Your task to perform on an android device: Clear the shopping cart on walmart. Image 0: 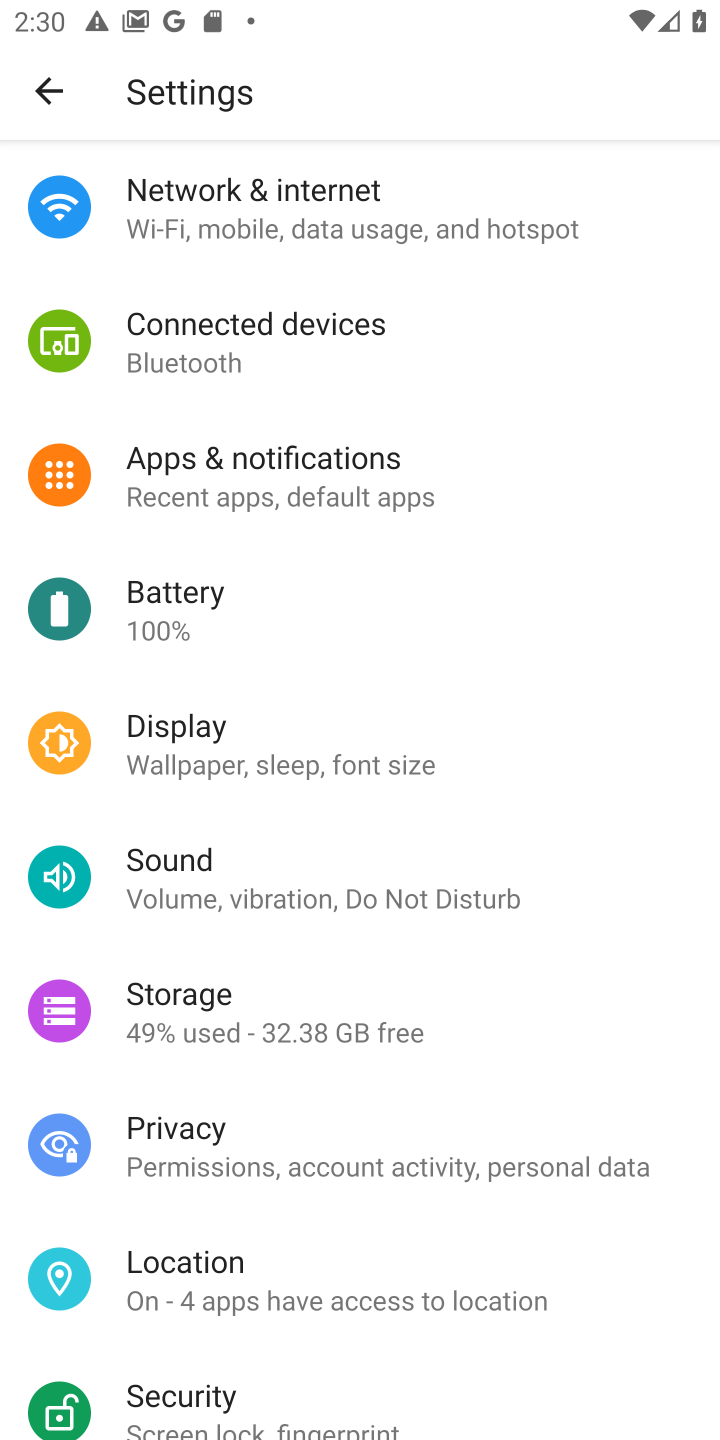
Step 0: press home button
Your task to perform on an android device: Clear the shopping cart on walmart. Image 1: 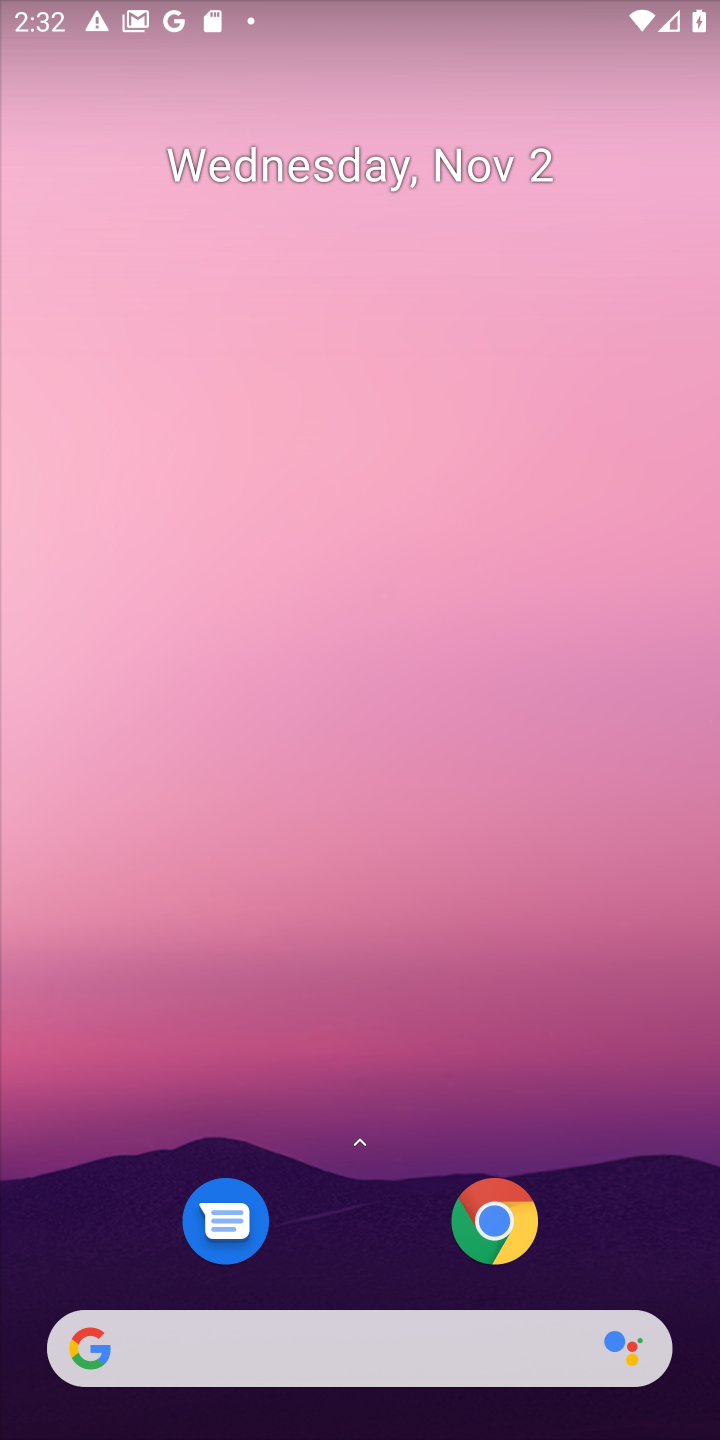
Step 1: click (363, 1372)
Your task to perform on an android device: Clear the shopping cart on walmart. Image 2: 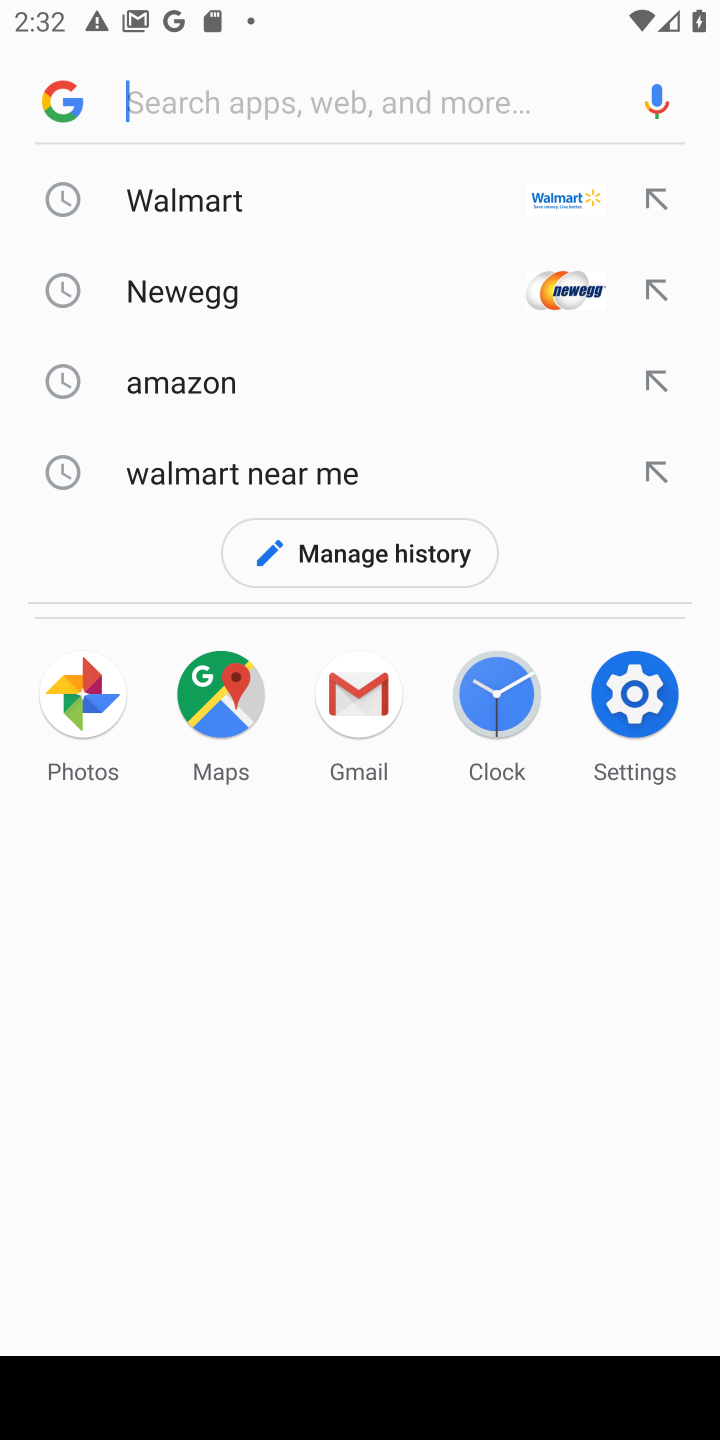
Step 2: click (504, 197)
Your task to perform on an android device: Clear the shopping cart on walmart. Image 3: 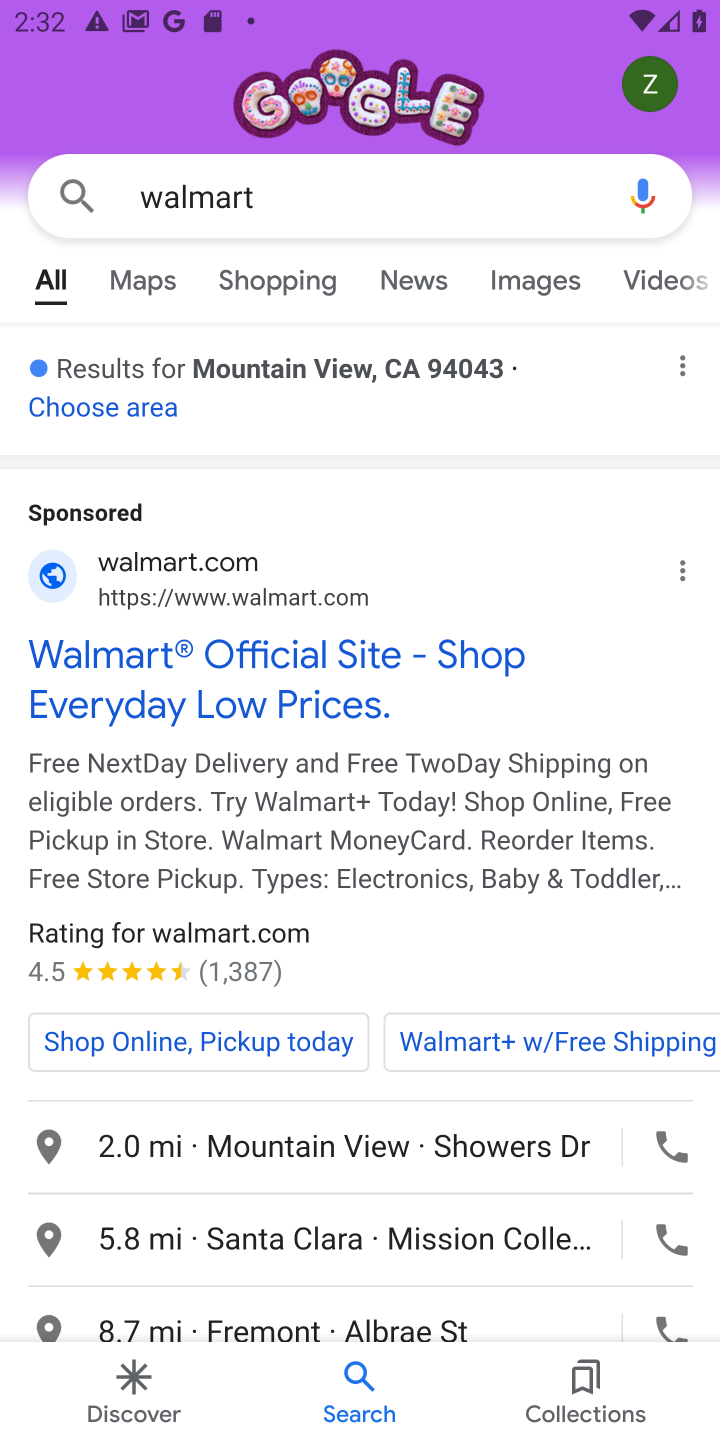
Step 3: click (249, 668)
Your task to perform on an android device: Clear the shopping cart on walmart. Image 4: 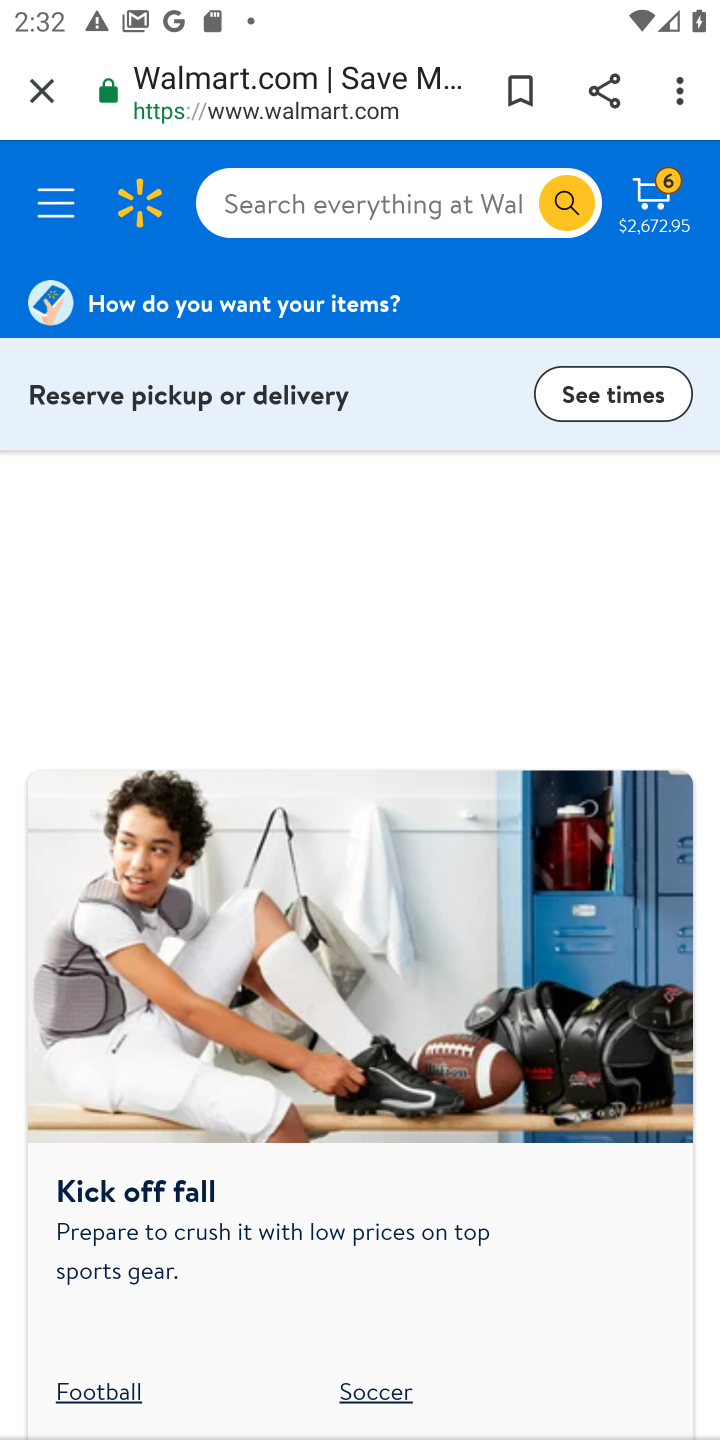
Step 4: click (625, 187)
Your task to perform on an android device: Clear the shopping cart on walmart. Image 5: 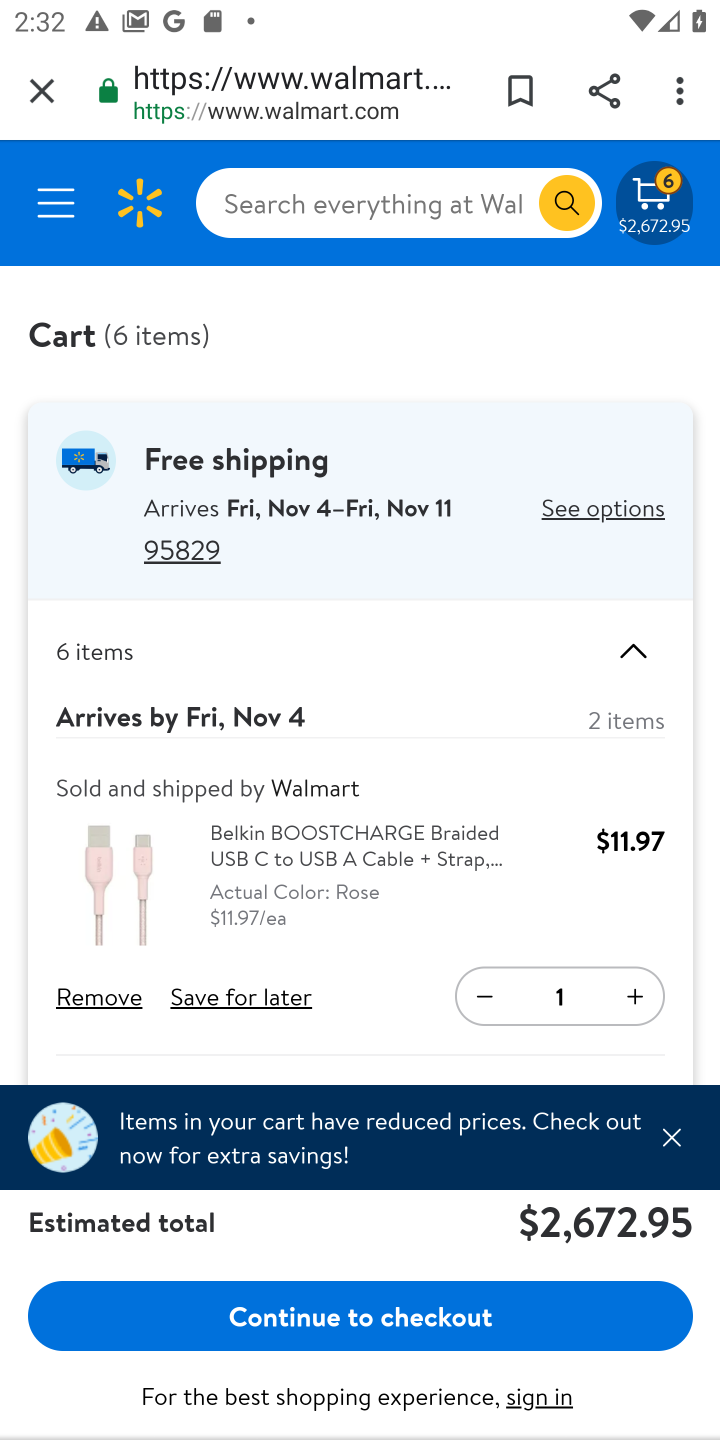
Step 5: click (490, 1005)
Your task to perform on an android device: Clear the shopping cart on walmart. Image 6: 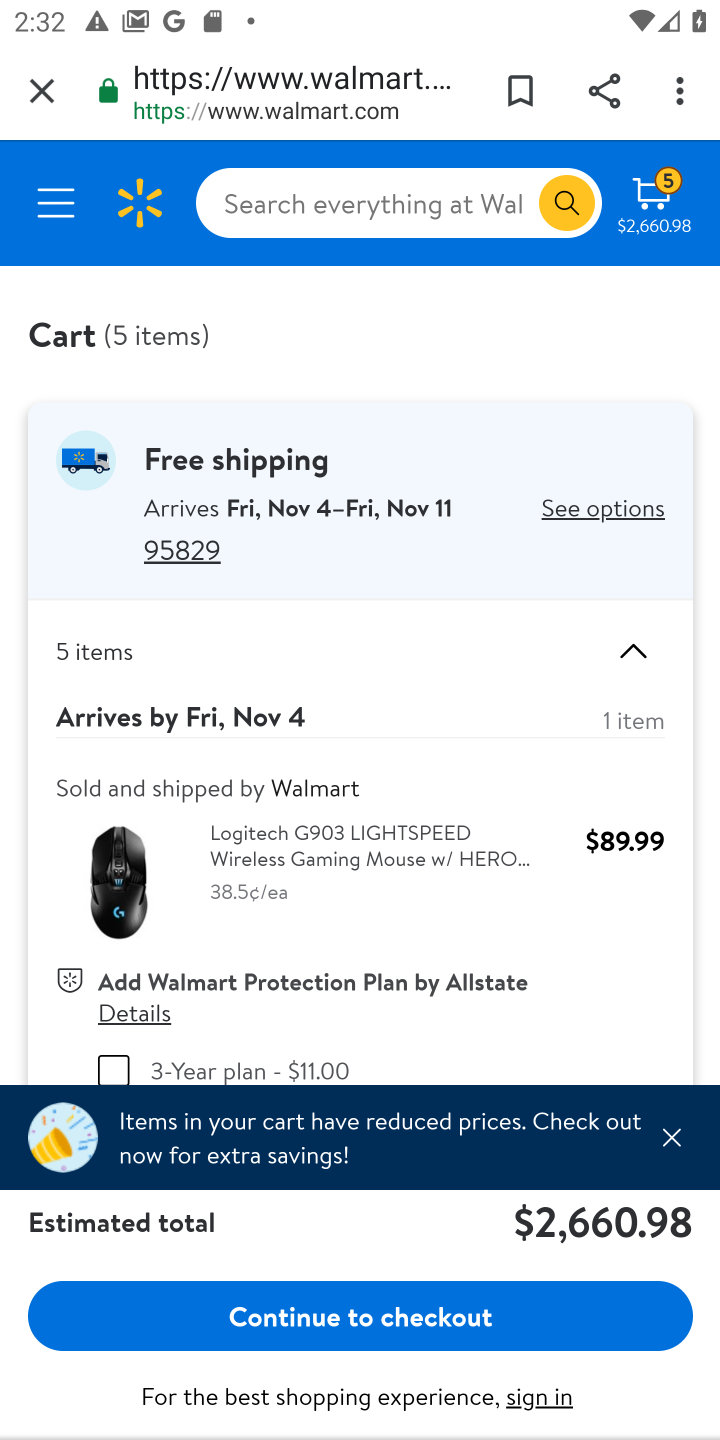
Step 6: drag from (333, 944) to (334, 670)
Your task to perform on an android device: Clear the shopping cart on walmart. Image 7: 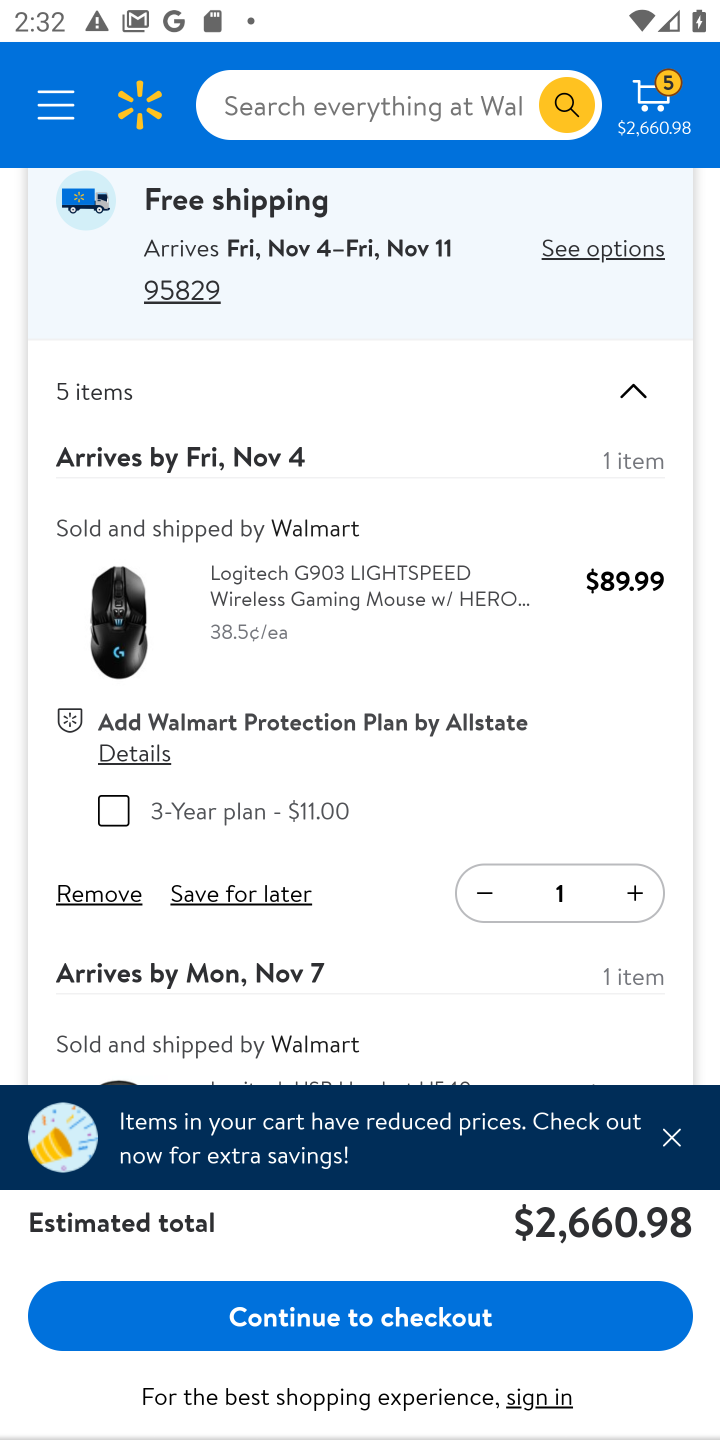
Step 7: click (673, 1048)
Your task to perform on an android device: Clear the shopping cart on walmart. Image 8: 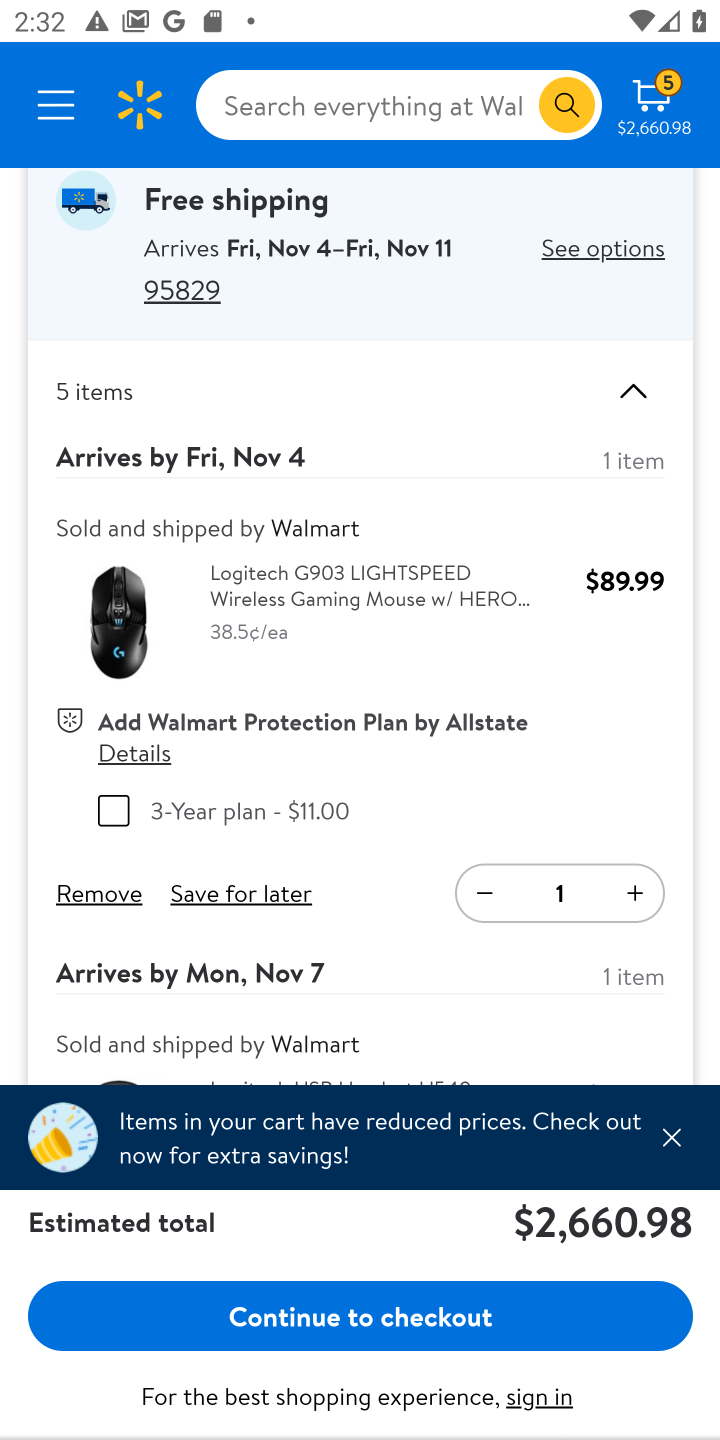
Step 8: click (478, 884)
Your task to perform on an android device: Clear the shopping cart on walmart. Image 9: 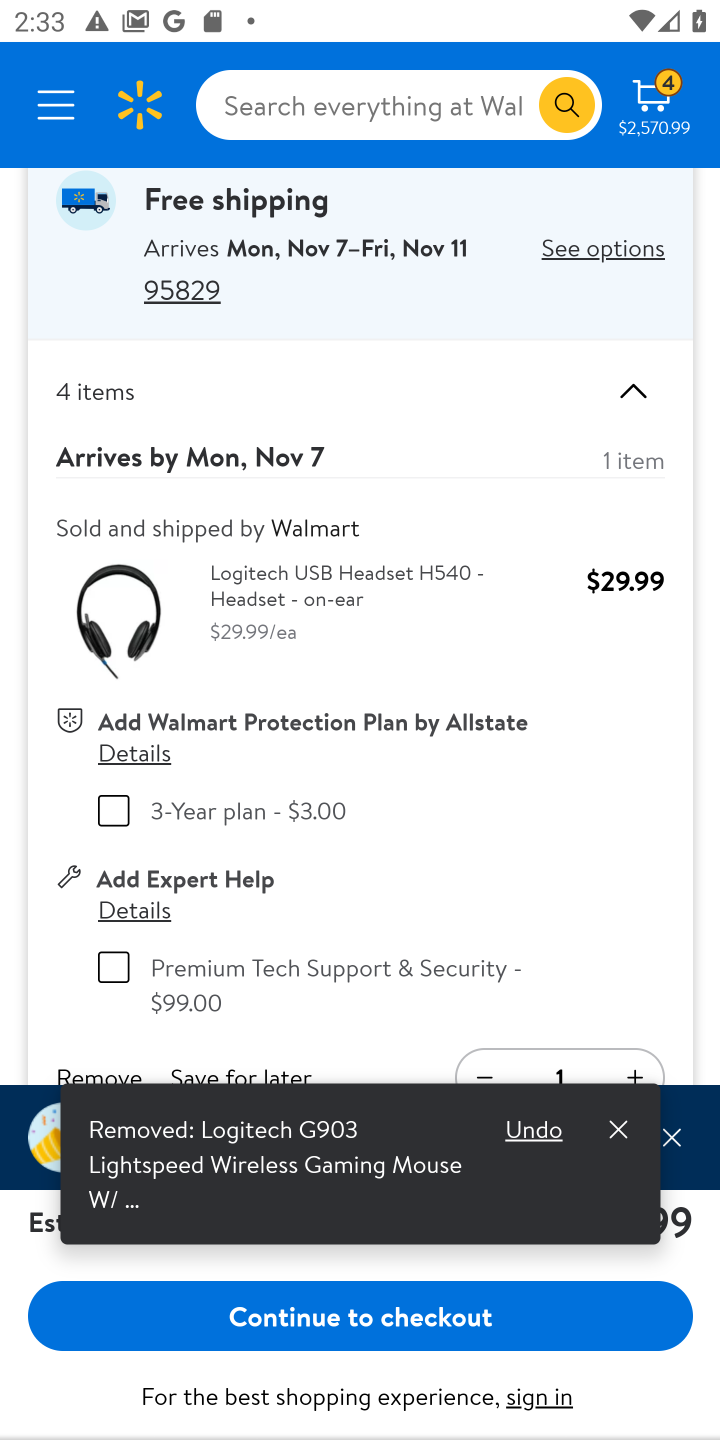
Step 9: drag from (471, 937) to (470, 670)
Your task to perform on an android device: Clear the shopping cart on walmart. Image 10: 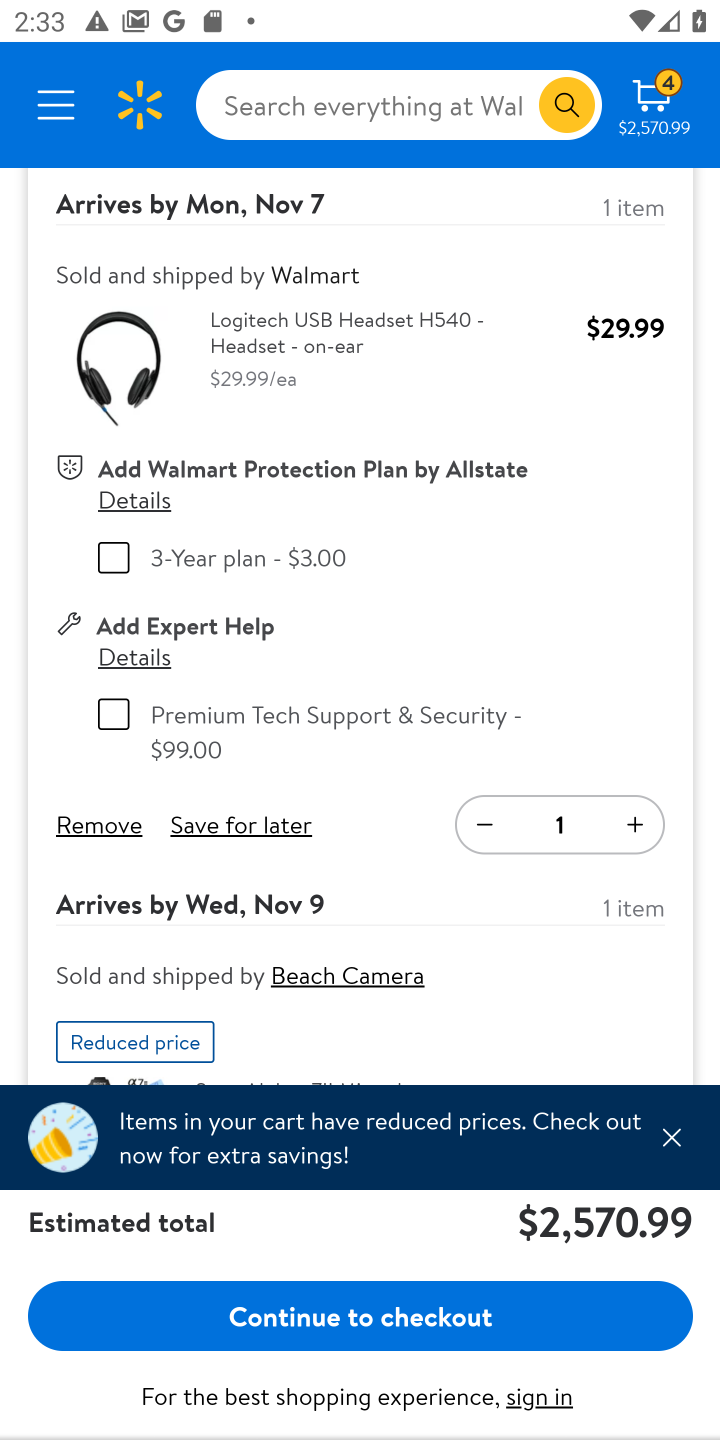
Step 10: click (497, 833)
Your task to perform on an android device: Clear the shopping cart on walmart. Image 11: 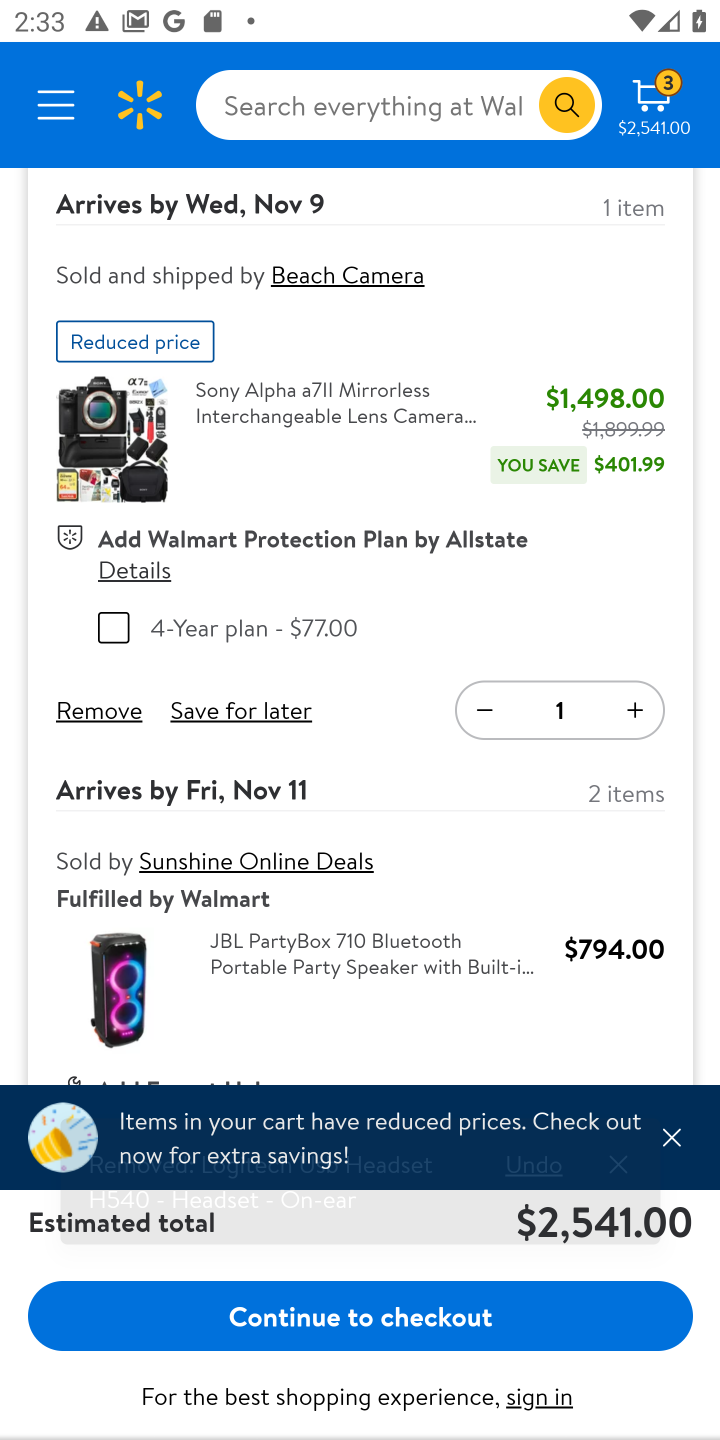
Step 11: click (475, 713)
Your task to perform on an android device: Clear the shopping cart on walmart. Image 12: 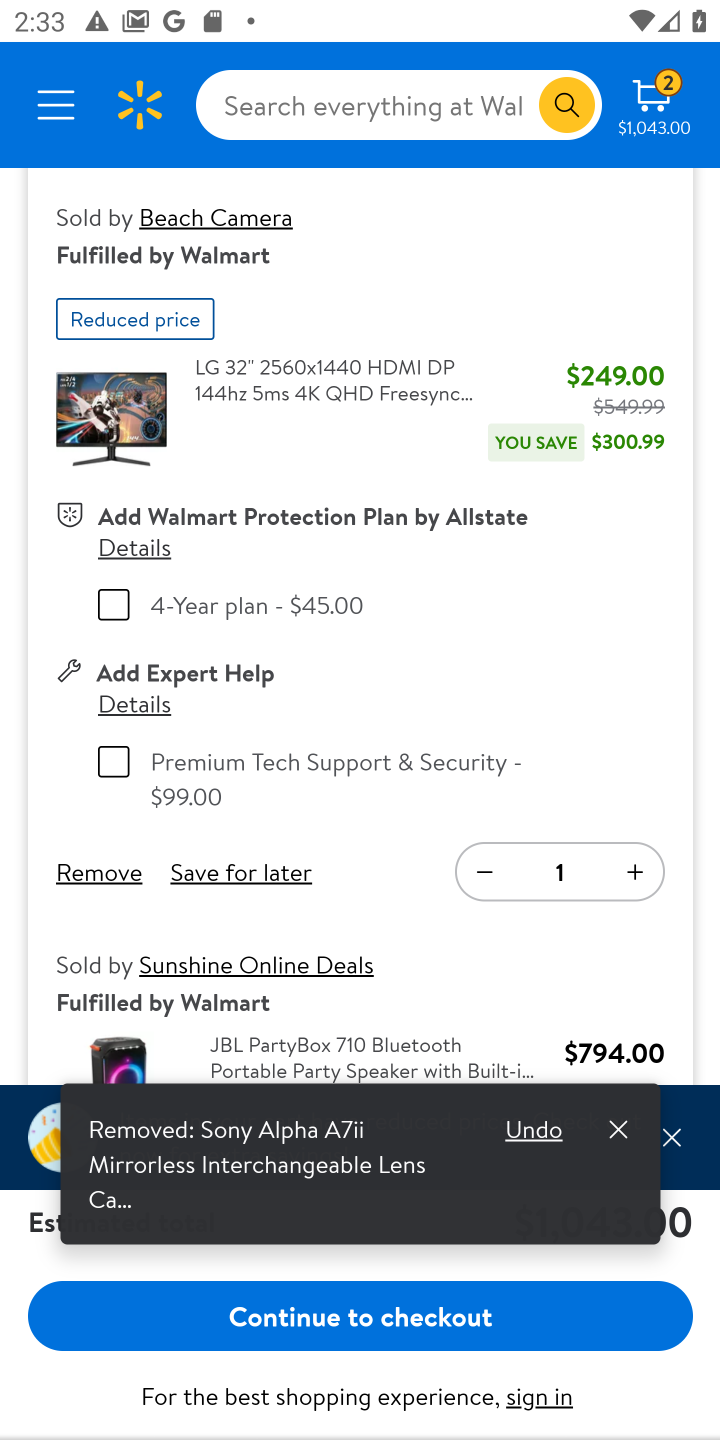
Step 12: click (484, 876)
Your task to perform on an android device: Clear the shopping cart on walmart. Image 13: 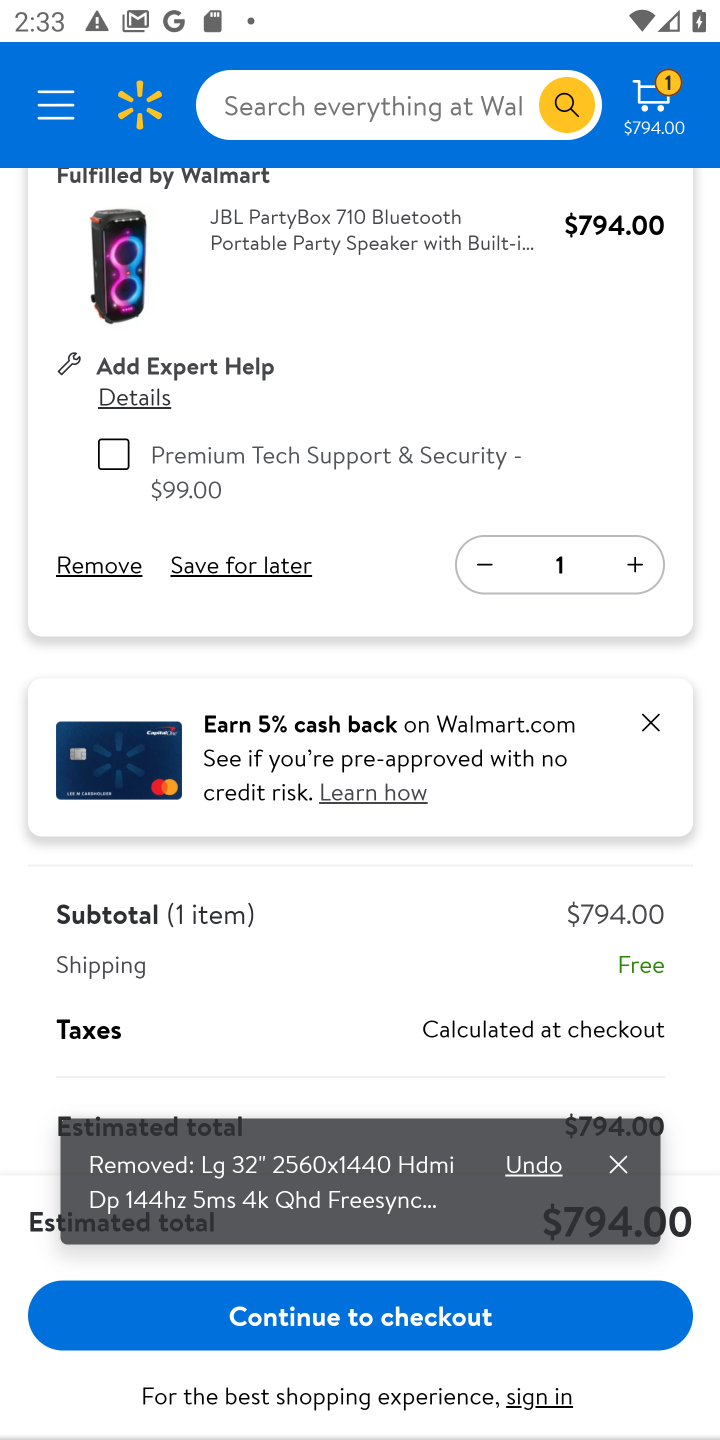
Step 13: click (474, 559)
Your task to perform on an android device: Clear the shopping cart on walmart. Image 14: 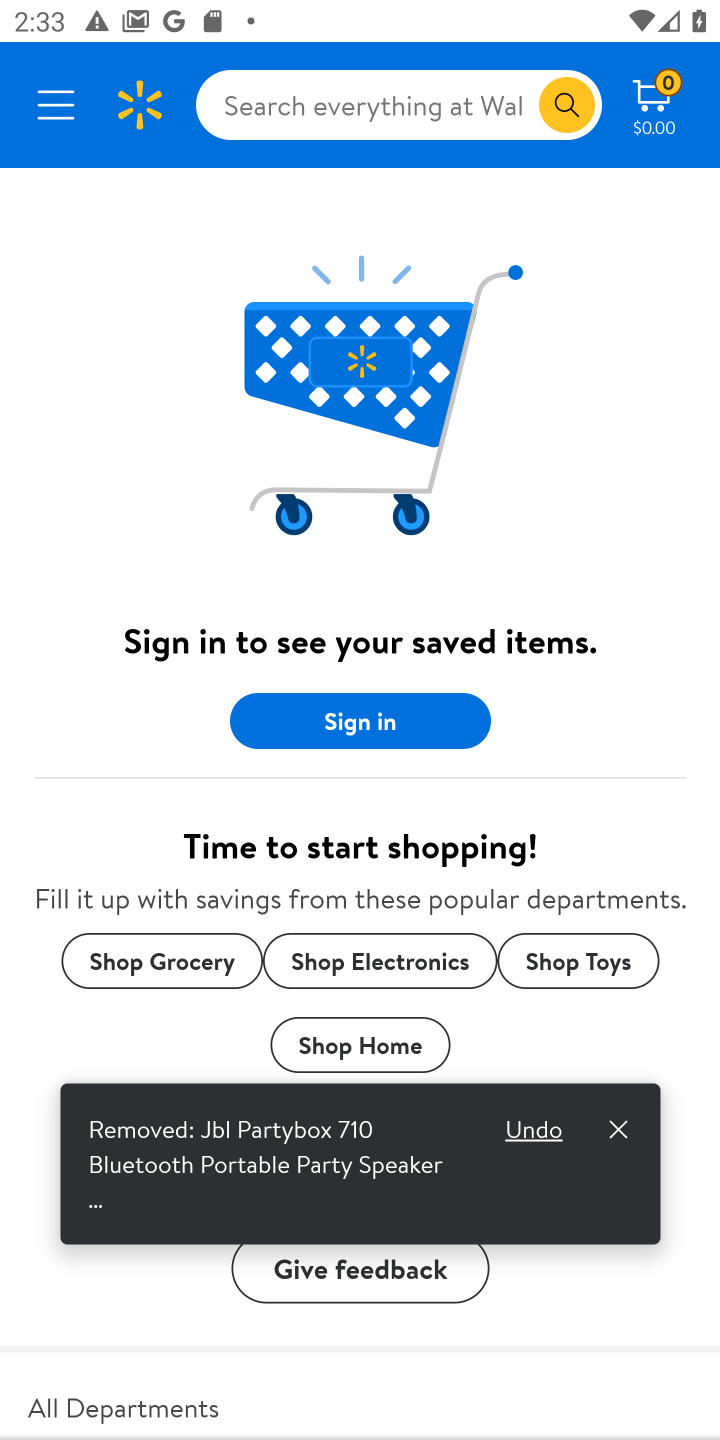
Step 14: task complete